Your task to perform on an android device: toggle wifi Image 0: 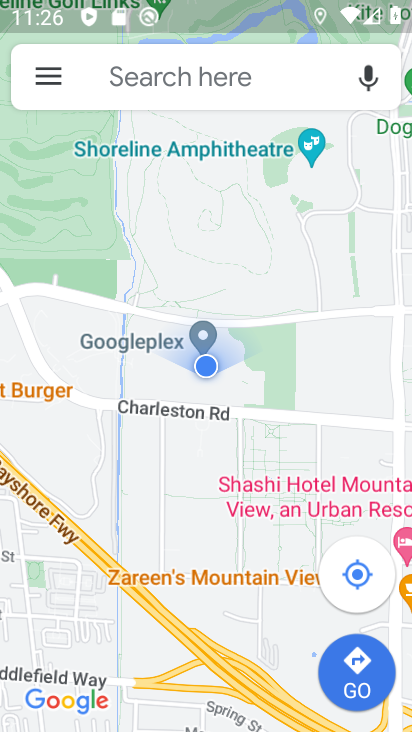
Step 0: press home button
Your task to perform on an android device: toggle wifi Image 1: 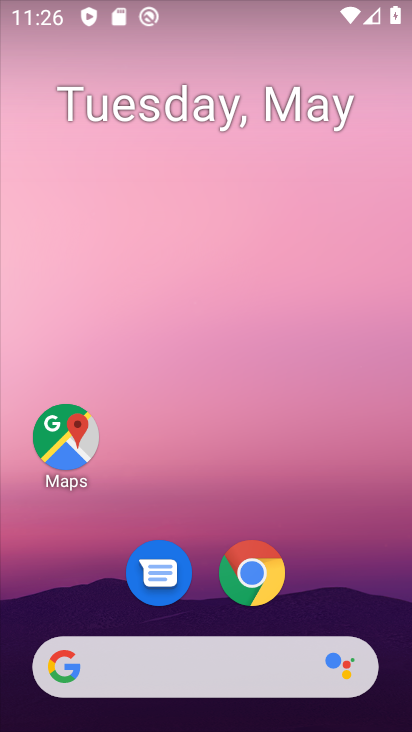
Step 1: drag from (187, 532) to (195, 208)
Your task to perform on an android device: toggle wifi Image 2: 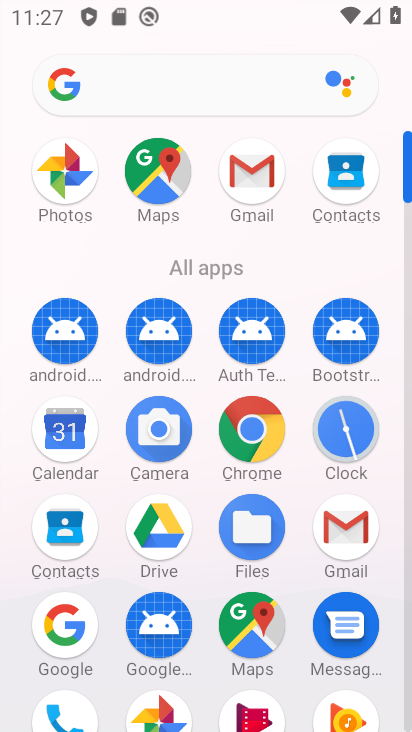
Step 2: drag from (190, 237) to (211, 526)
Your task to perform on an android device: toggle wifi Image 3: 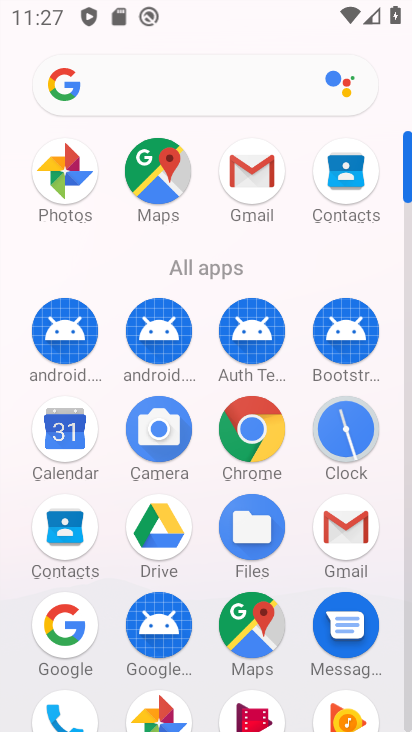
Step 3: drag from (194, 605) to (265, 197)
Your task to perform on an android device: toggle wifi Image 4: 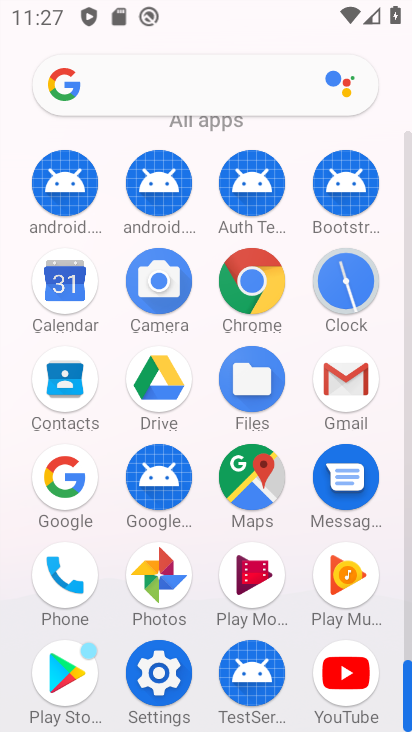
Step 4: click (140, 684)
Your task to perform on an android device: toggle wifi Image 5: 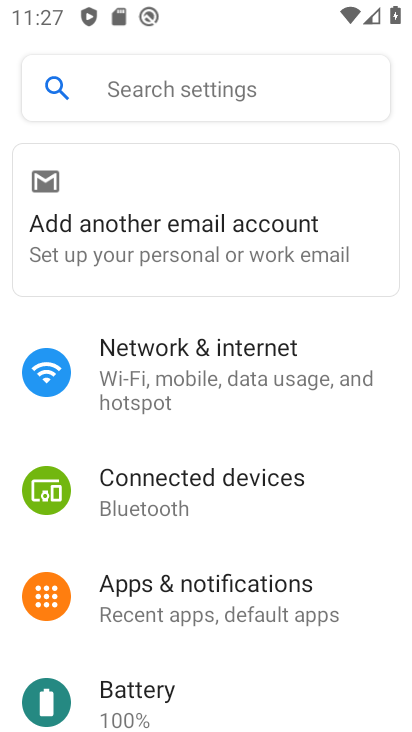
Step 5: click (222, 339)
Your task to perform on an android device: toggle wifi Image 6: 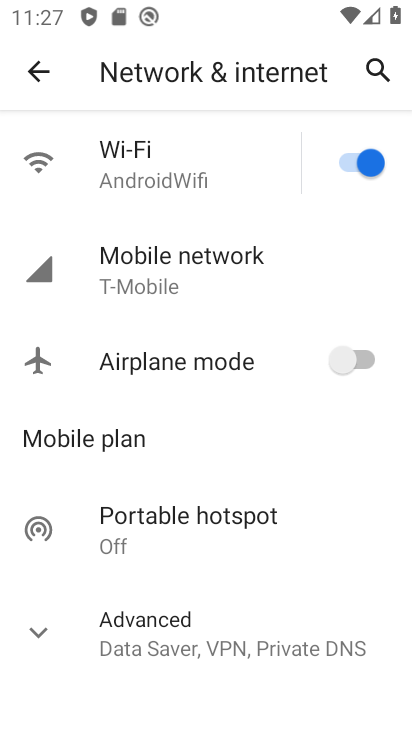
Step 6: click (341, 139)
Your task to perform on an android device: toggle wifi Image 7: 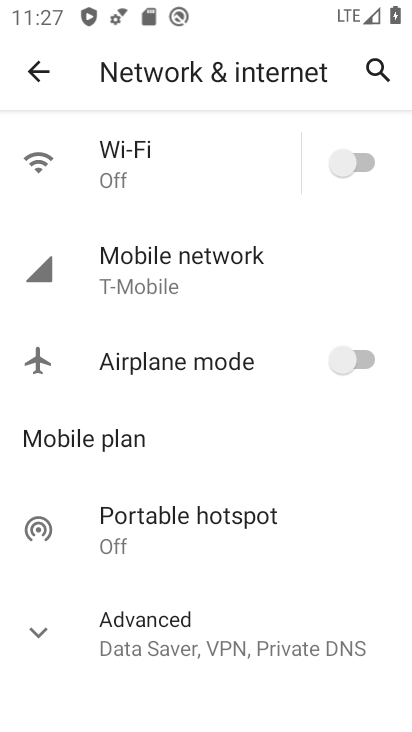
Step 7: task complete